Your task to perform on an android device: Search for Mexican restaurants on Maps Image 0: 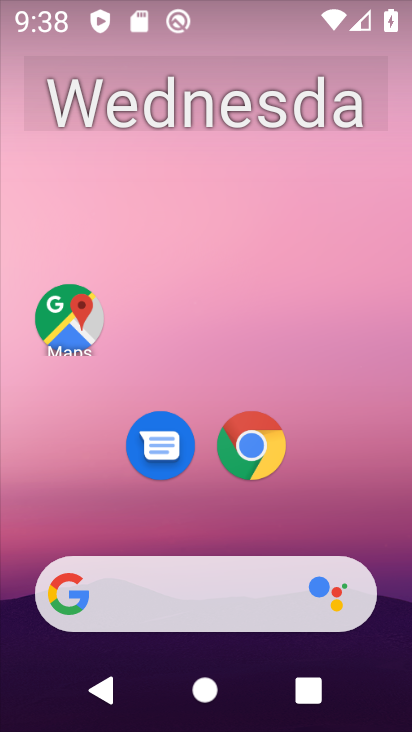
Step 0: click (57, 309)
Your task to perform on an android device: Search for Mexican restaurants on Maps Image 1: 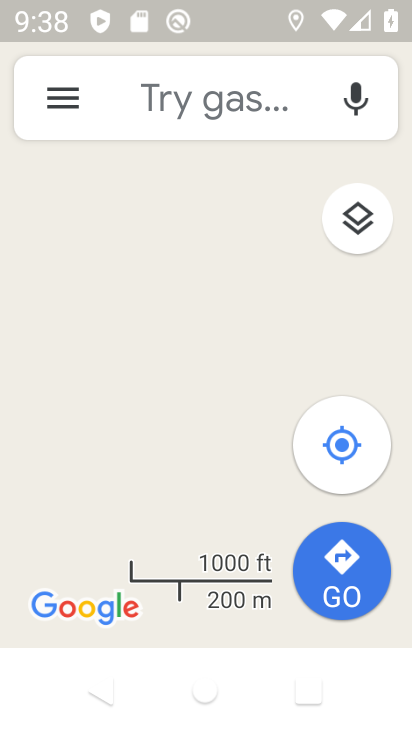
Step 1: click (178, 99)
Your task to perform on an android device: Search for Mexican restaurants on Maps Image 2: 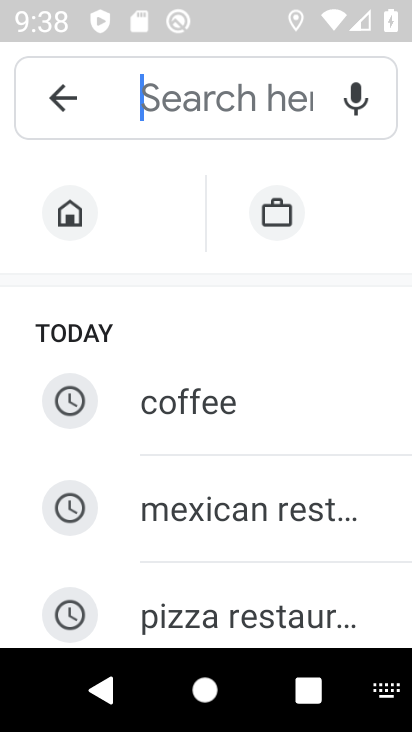
Step 2: click (222, 519)
Your task to perform on an android device: Search for Mexican restaurants on Maps Image 3: 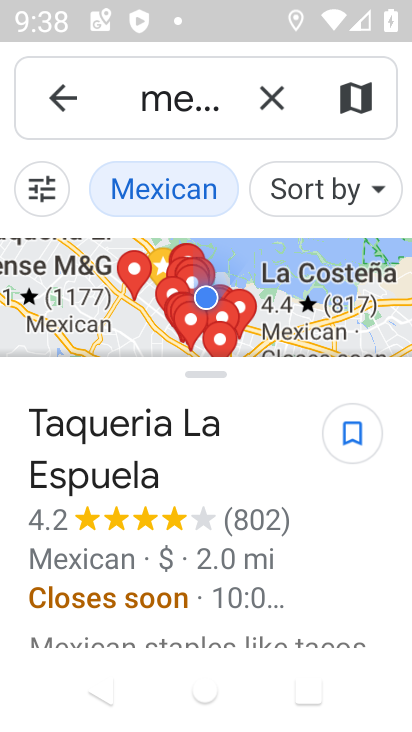
Step 3: task complete